Your task to perform on an android device: Search for 5 star sushi restaurants on Maps Image 0: 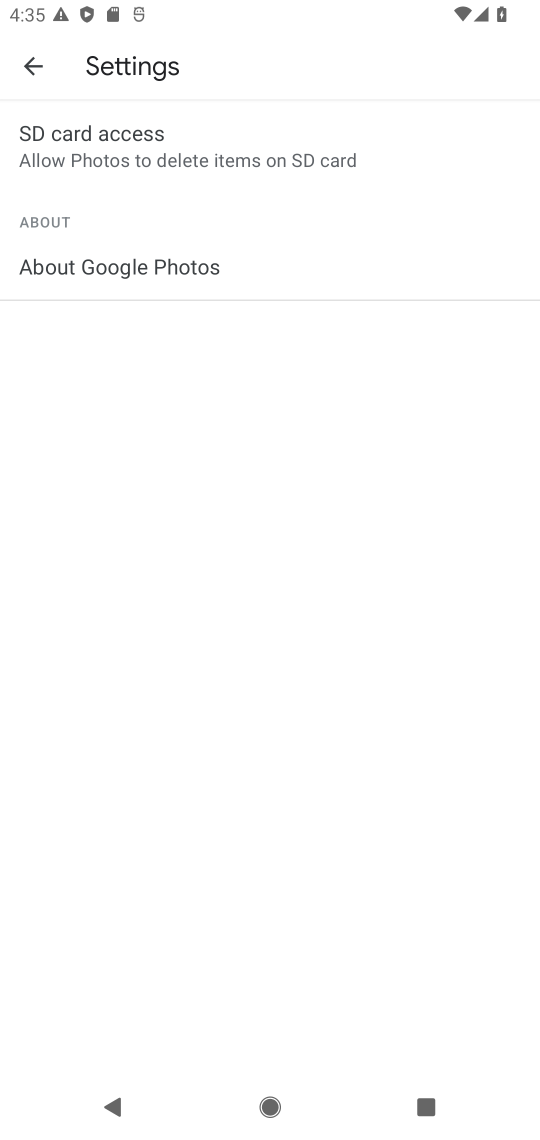
Step 0: press home button
Your task to perform on an android device: Search for 5 star sushi restaurants on Maps Image 1: 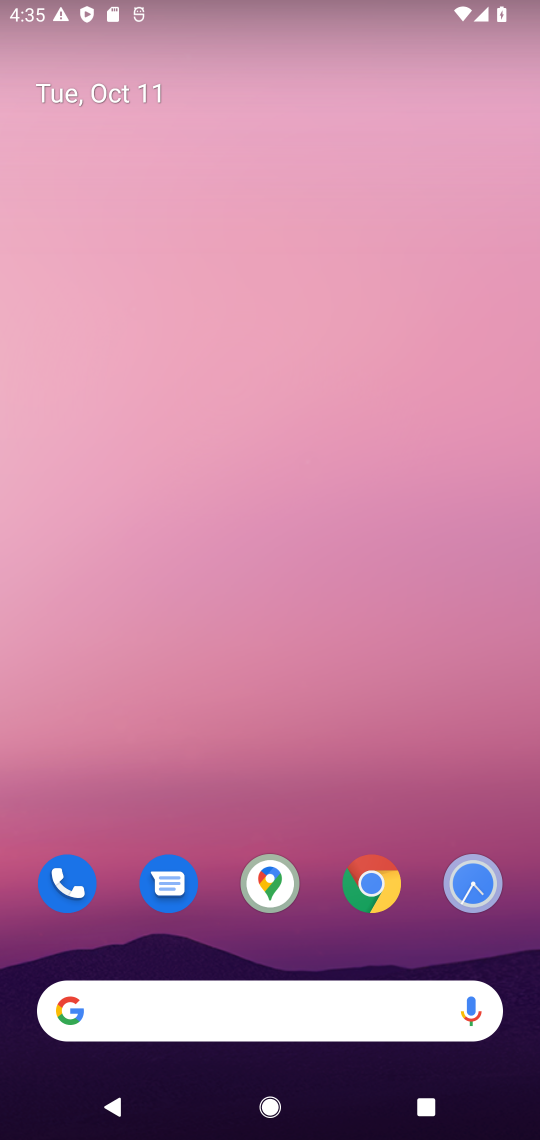
Step 1: drag from (322, 956) to (298, 77)
Your task to perform on an android device: Search for 5 star sushi restaurants on Maps Image 2: 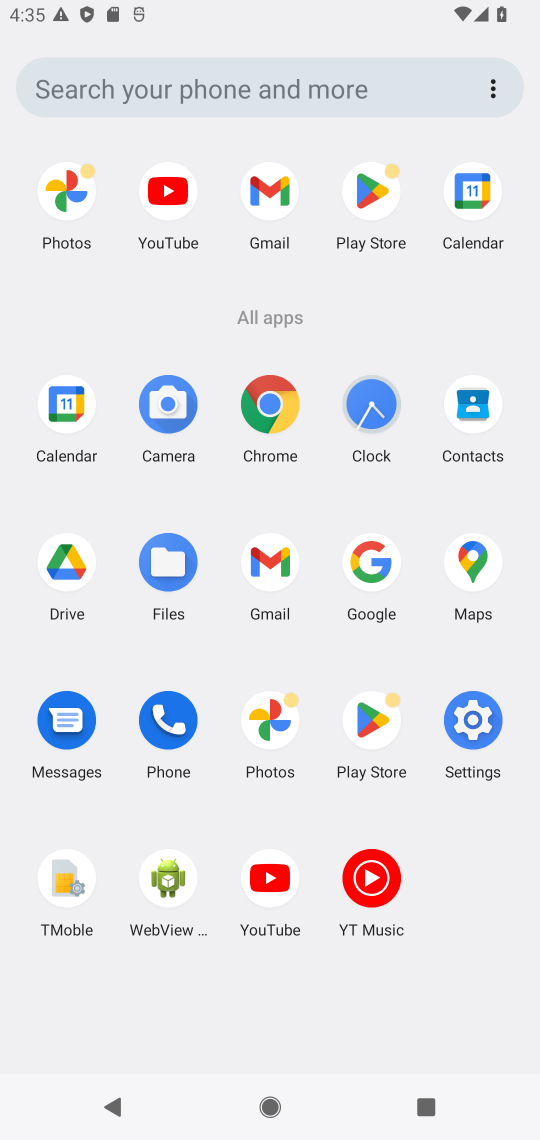
Step 2: click (463, 557)
Your task to perform on an android device: Search for 5 star sushi restaurants on Maps Image 3: 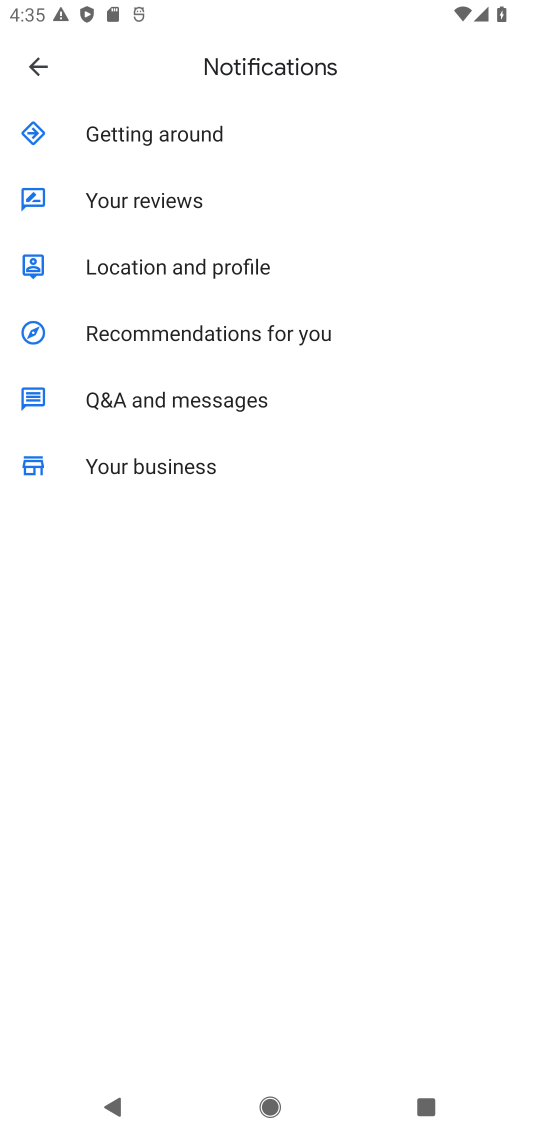
Step 3: press back button
Your task to perform on an android device: Search for 5 star sushi restaurants on Maps Image 4: 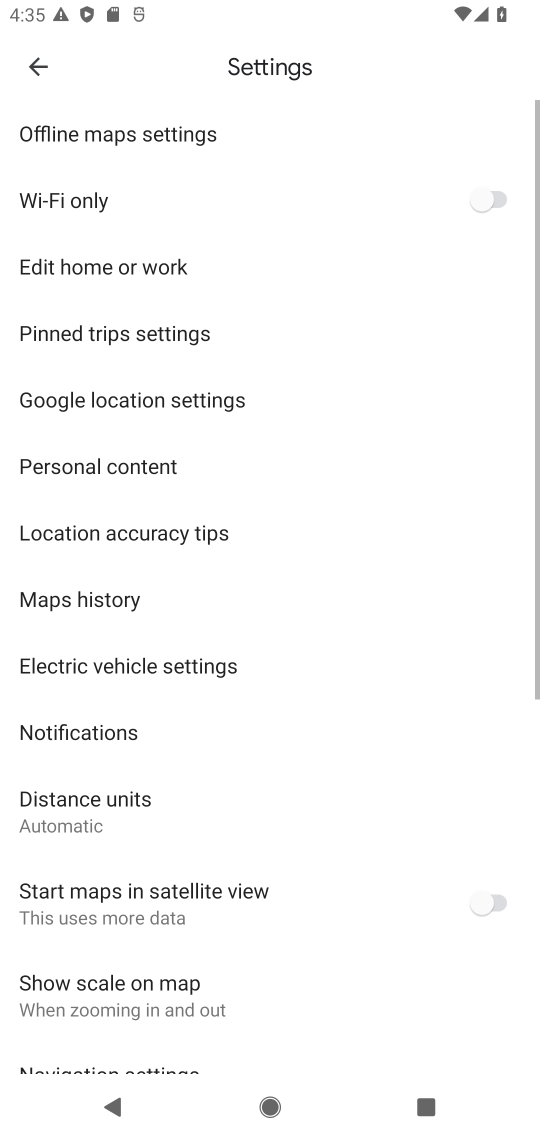
Step 4: press back button
Your task to perform on an android device: Search for 5 star sushi restaurants on Maps Image 5: 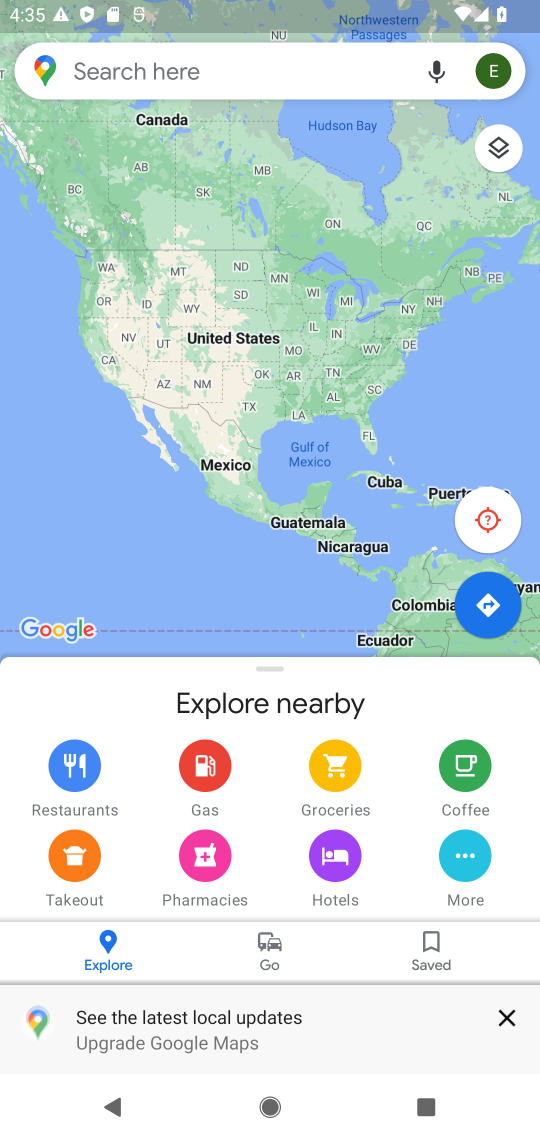
Step 5: click (274, 67)
Your task to perform on an android device: Search for 5 star sushi restaurants on Maps Image 6: 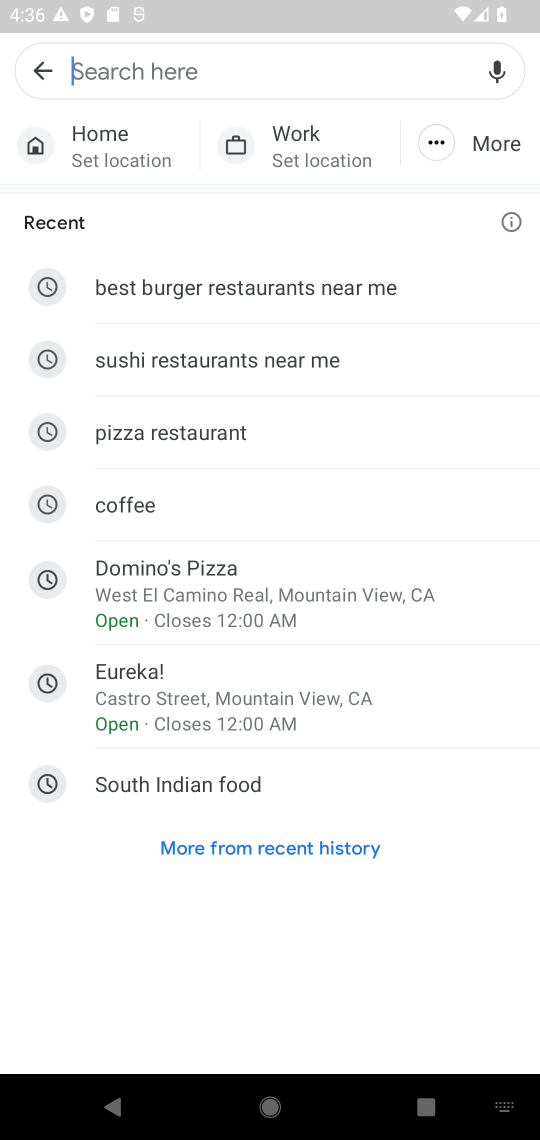
Step 6: type "5 star sushi restaurants "
Your task to perform on an android device: Search for 5 star sushi restaurants on Maps Image 7: 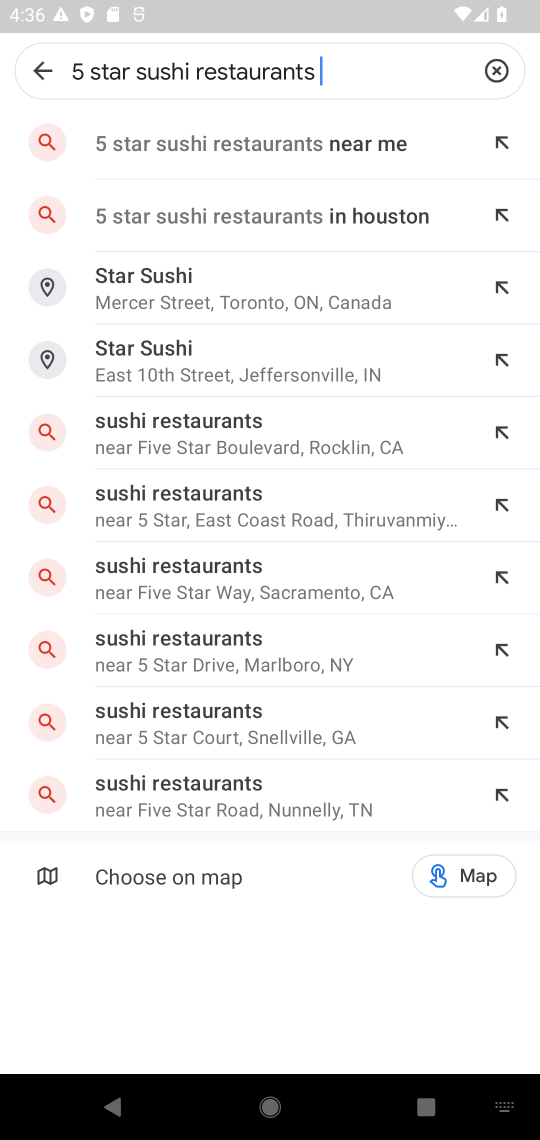
Step 7: press enter
Your task to perform on an android device: Search for 5 star sushi restaurants on Maps Image 8: 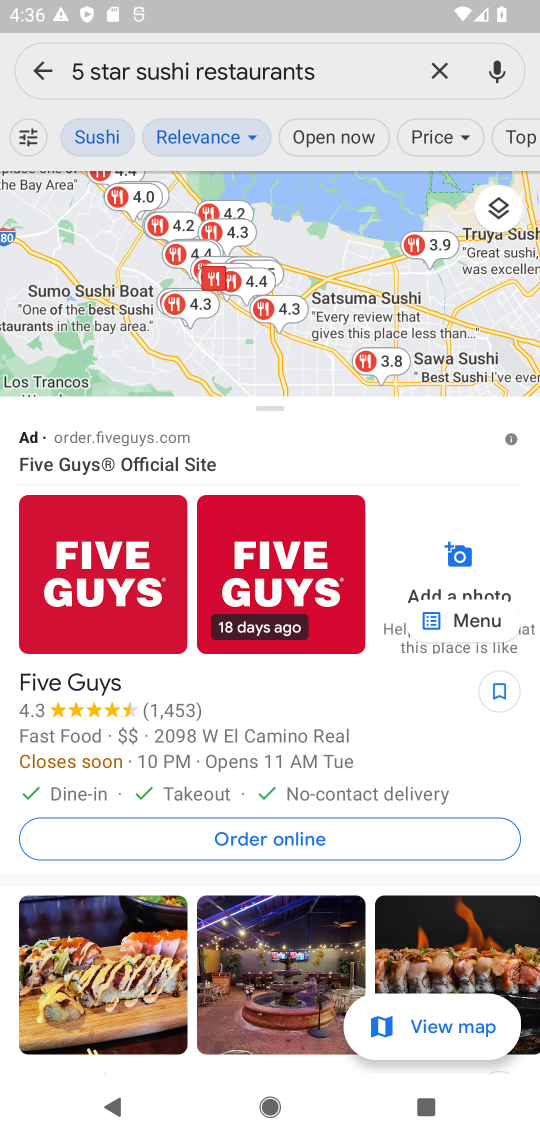
Step 8: task complete